Your task to perform on an android device: Open calendar and show me the third week of next month Image 0: 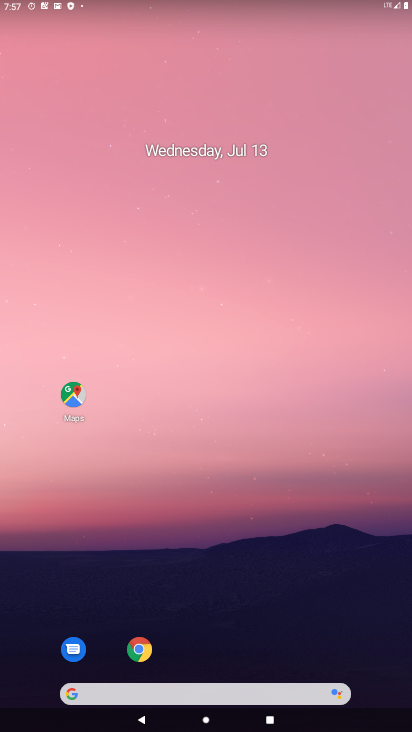
Step 0: drag from (232, 607) to (265, 188)
Your task to perform on an android device: Open calendar and show me the third week of next month Image 1: 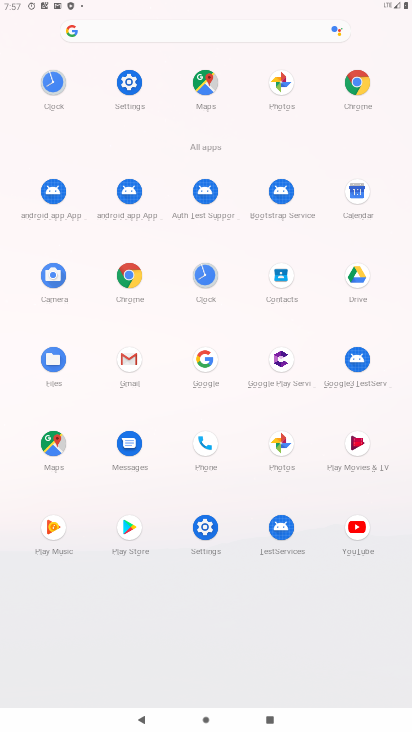
Step 1: click (360, 199)
Your task to perform on an android device: Open calendar and show me the third week of next month Image 2: 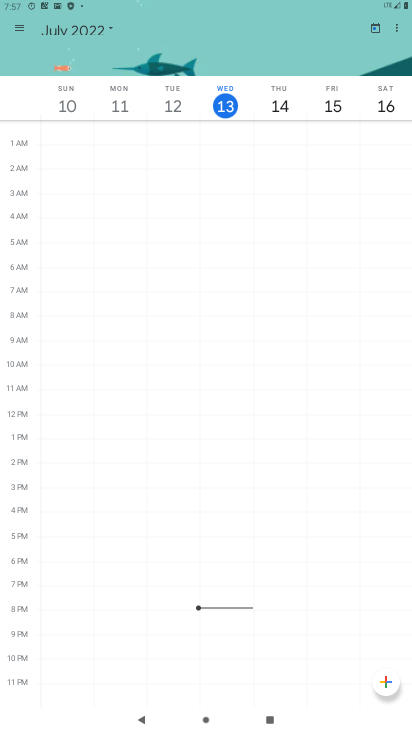
Step 2: task complete